Your task to perform on an android device: Go to sound settings Image 0: 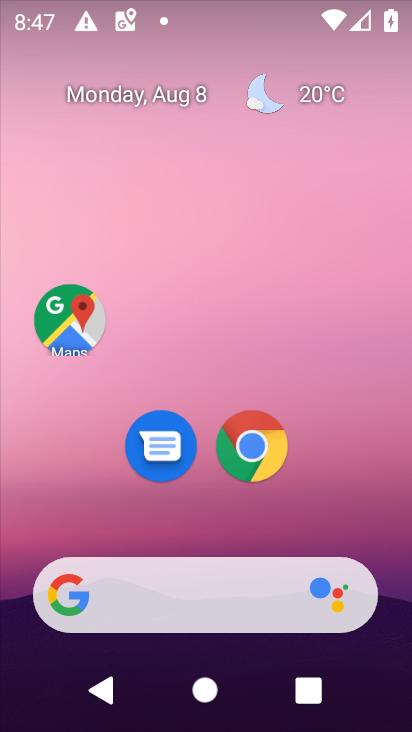
Step 0: drag from (392, 650) to (325, 136)
Your task to perform on an android device: Go to sound settings Image 1: 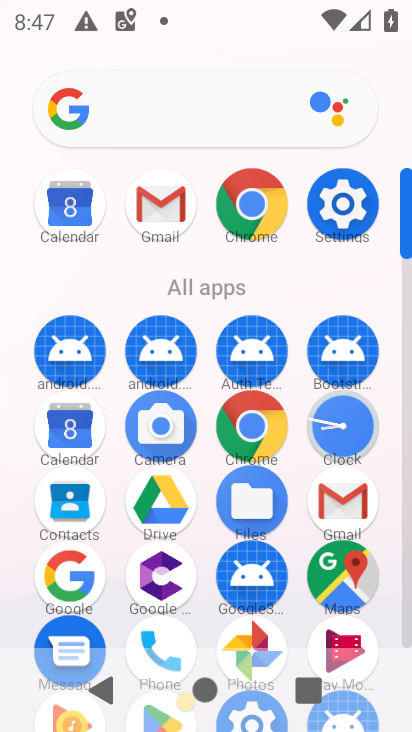
Step 1: click (345, 206)
Your task to perform on an android device: Go to sound settings Image 2: 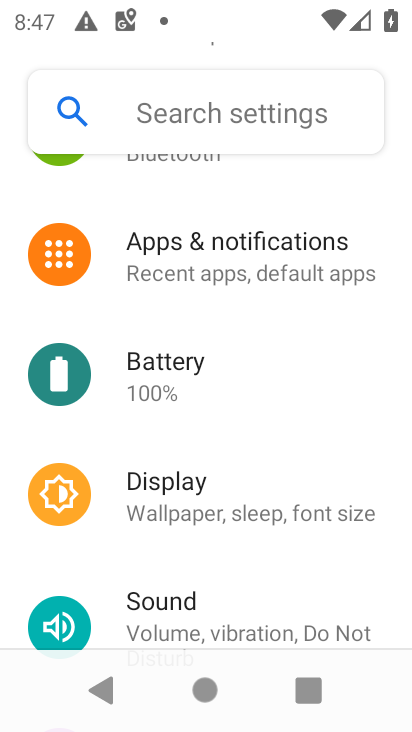
Step 2: drag from (392, 592) to (368, 370)
Your task to perform on an android device: Go to sound settings Image 3: 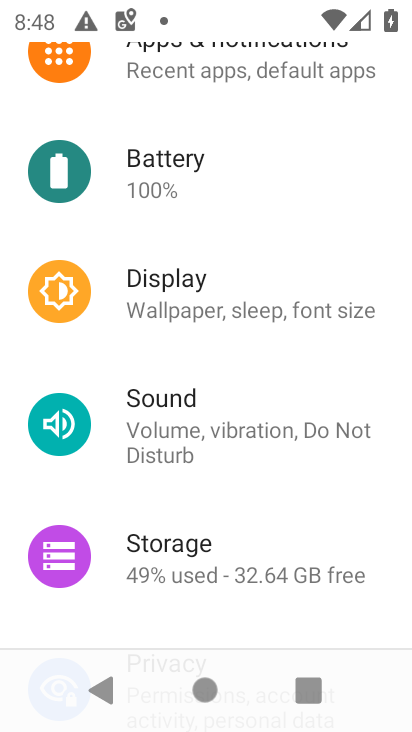
Step 3: click (152, 411)
Your task to perform on an android device: Go to sound settings Image 4: 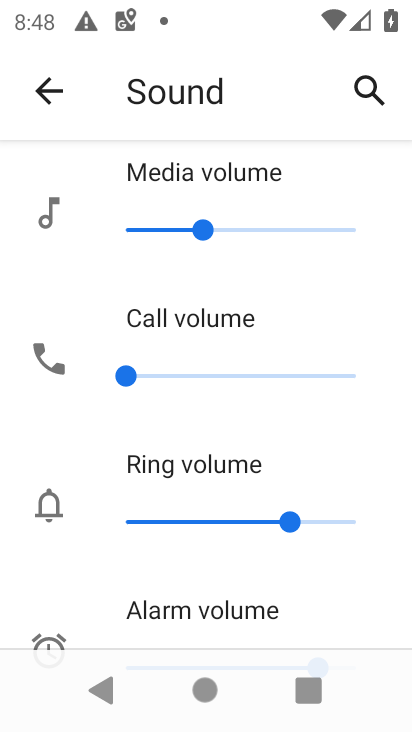
Step 4: task complete